Your task to perform on an android device: Open the map Image 0: 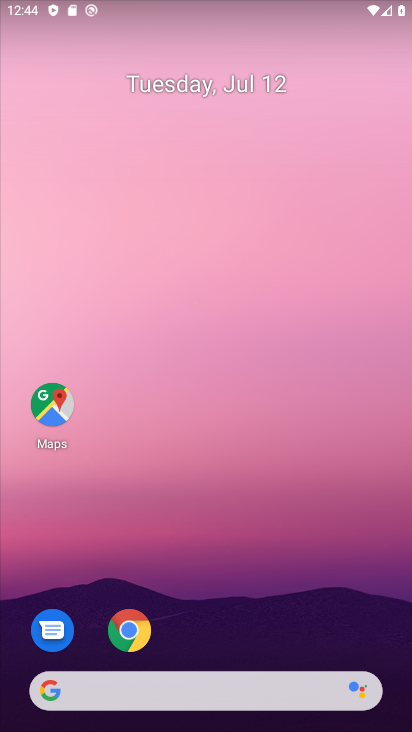
Step 0: drag from (262, 628) to (233, 46)
Your task to perform on an android device: Open the map Image 1: 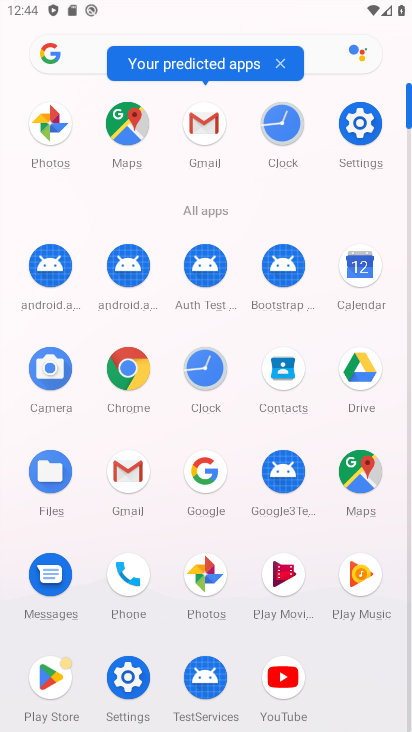
Step 1: click (127, 123)
Your task to perform on an android device: Open the map Image 2: 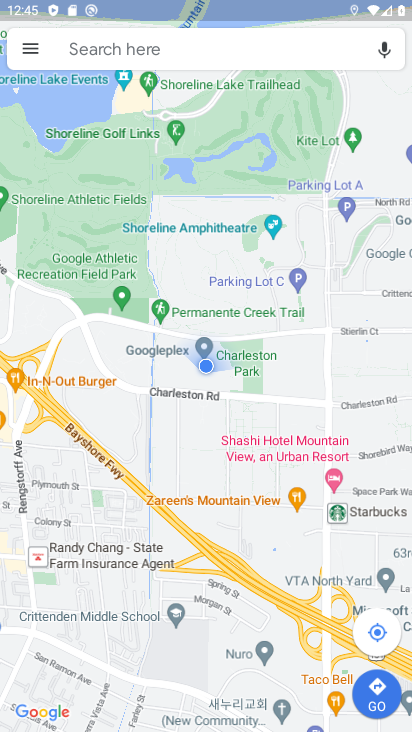
Step 2: task complete